Your task to perform on an android device: Set the phone to "Do not disturb". Image 0: 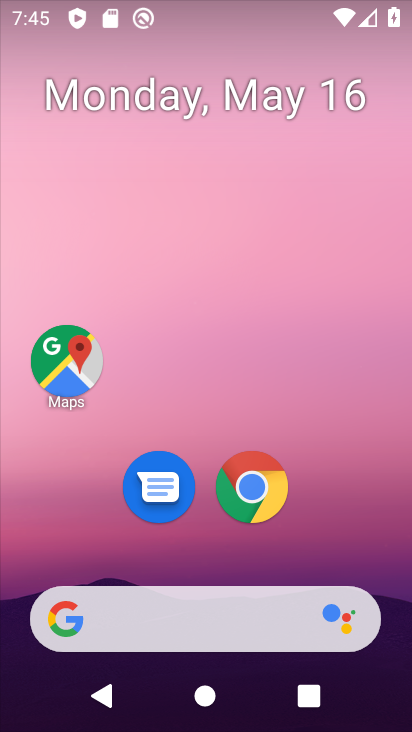
Step 0: drag from (330, 512) to (347, 115)
Your task to perform on an android device: Set the phone to "Do not disturb". Image 1: 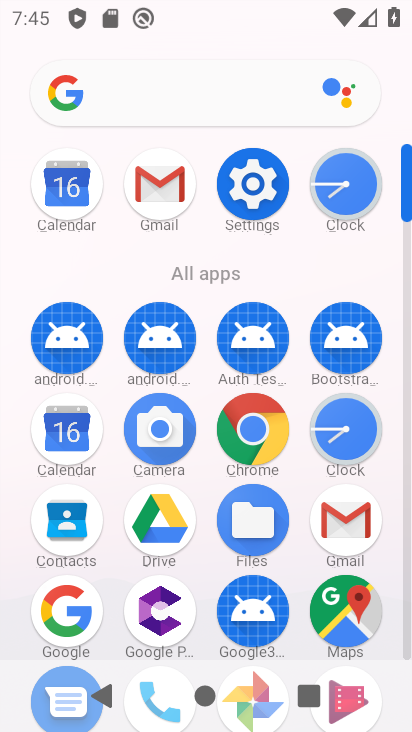
Step 1: click (191, 472)
Your task to perform on an android device: Set the phone to "Do not disturb". Image 2: 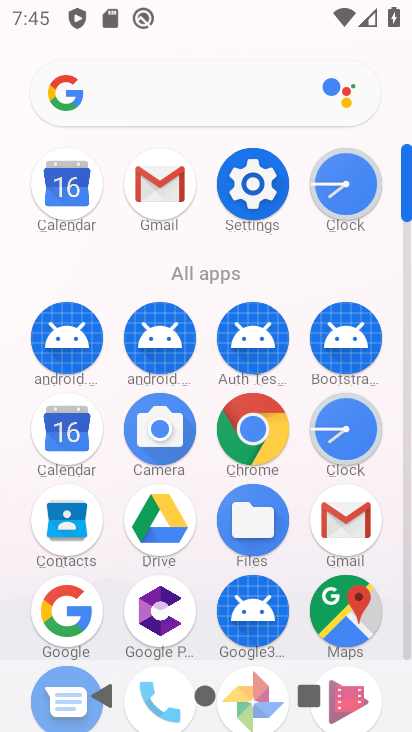
Step 2: click (263, 181)
Your task to perform on an android device: Set the phone to "Do not disturb". Image 3: 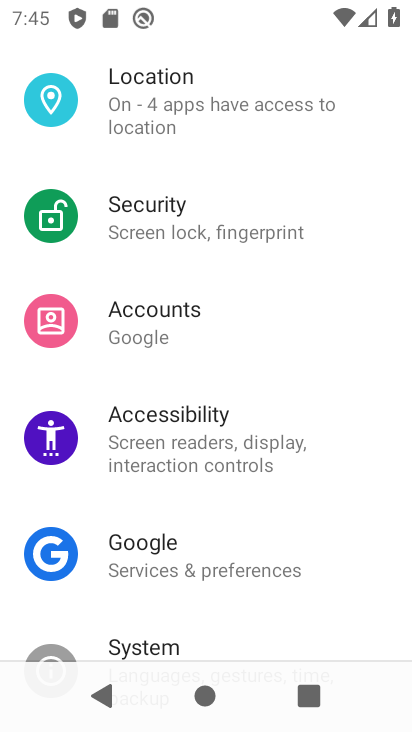
Step 3: drag from (240, 302) to (169, 639)
Your task to perform on an android device: Set the phone to "Do not disturb". Image 4: 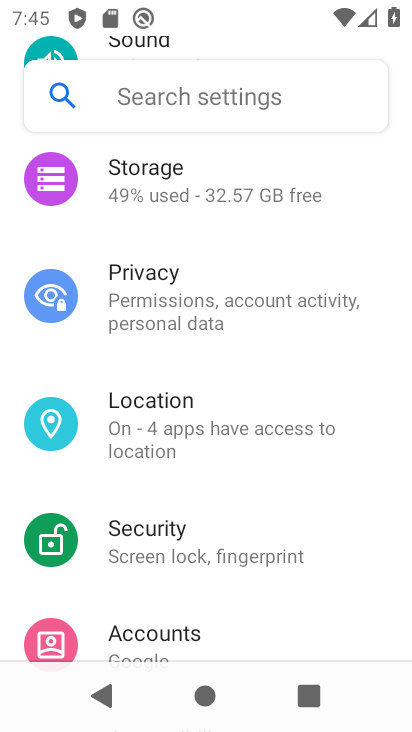
Step 4: drag from (199, 250) to (170, 589)
Your task to perform on an android device: Set the phone to "Do not disturb". Image 5: 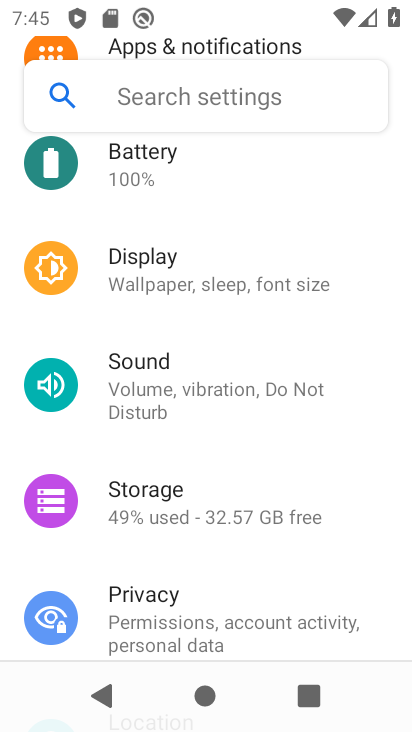
Step 5: click (225, 380)
Your task to perform on an android device: Set the phone to "Do not disturb". Image 6: 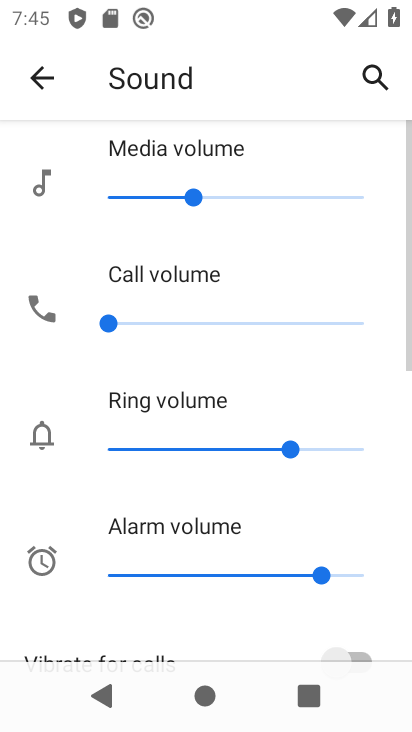
Step 6: drag from (208, 515) to (251, 155)
Your task to perform on an android device: Set the phone to "Do not disturb". Image 7: 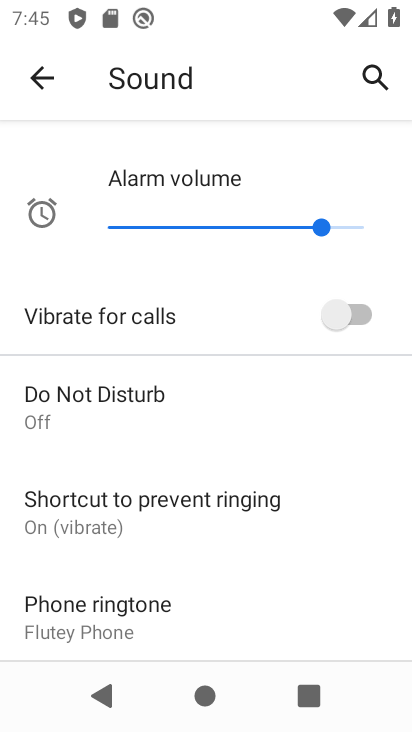
Step 7: click (80, 408)
Your task to perform on an android device: Set the phone to "Do not disturb". Image 8: 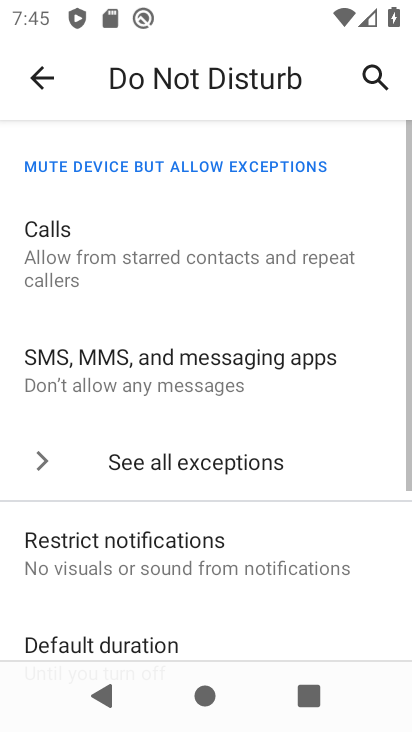
Step 8: drag from (138, 519) to (195, 133)
Your task to perform on an android device: Set the phone to "Do not disturb". Image 9: 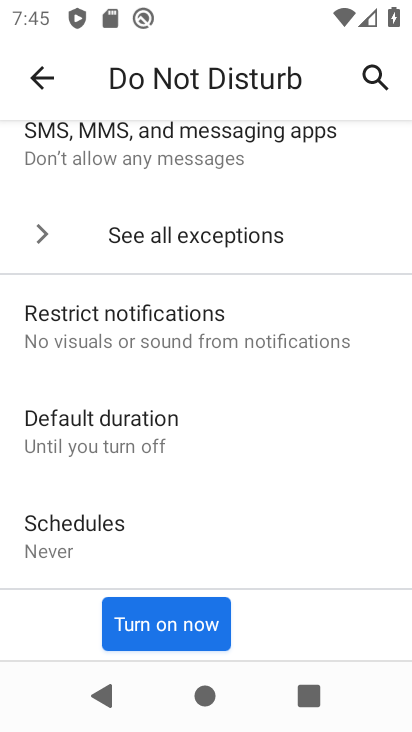
Step 9: click (176, 622)
Your task to perform on an android device: Set the phone to "Do not disturb". Image 10: 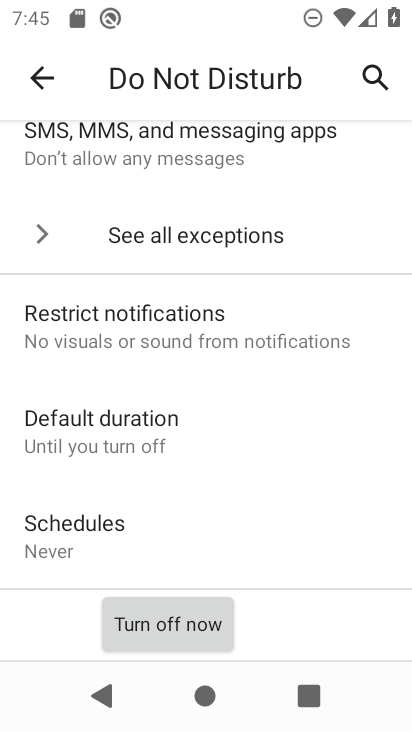
Step 10: task complete